Your task to perform on an android device: change the clock display to show seconds Image 0: 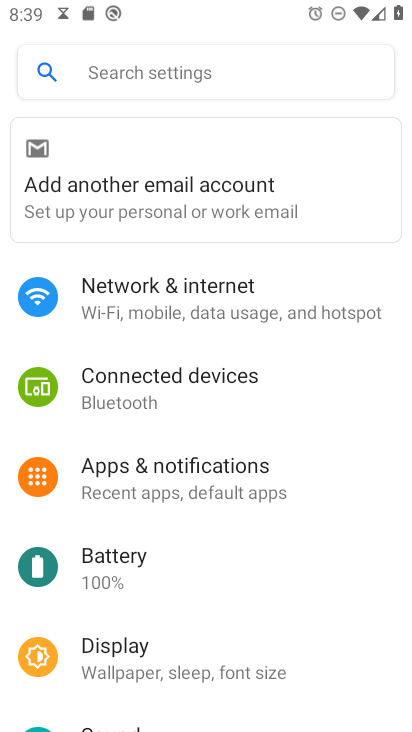
Step 0: press home button
Your task to perform on an android device: change the clock display to show seconds Image 1: 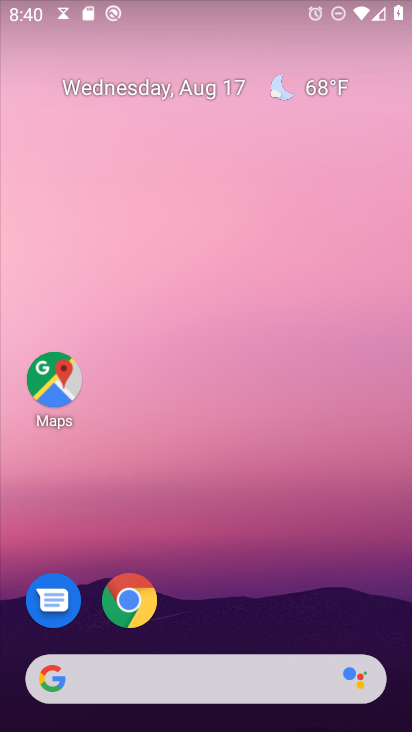
Step 1: drag from (284, 526) to (246, 100)
Your task to perform on an android device: change the clock display to show seconds Image 2: 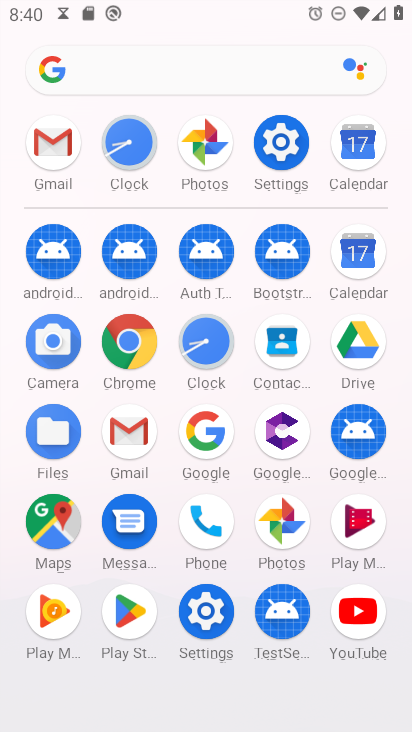
Step 2: click (137, 149)
Your task to perform on an android device: change the clock display to show seconds Image 3: 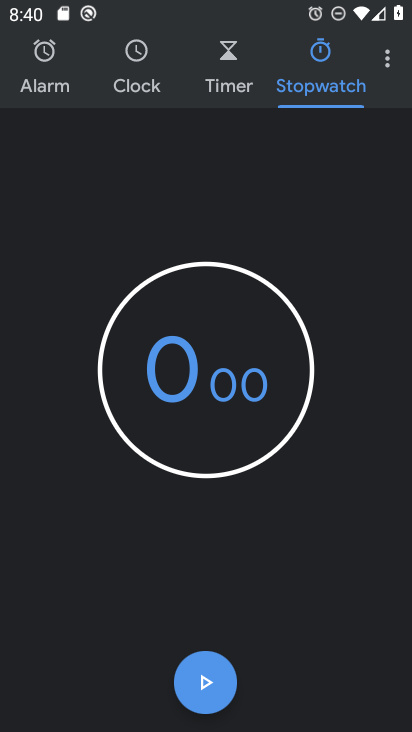
Step 3: click (385, 56)
Your task to perform on an android device: change the clock display to show seconds Image 4: 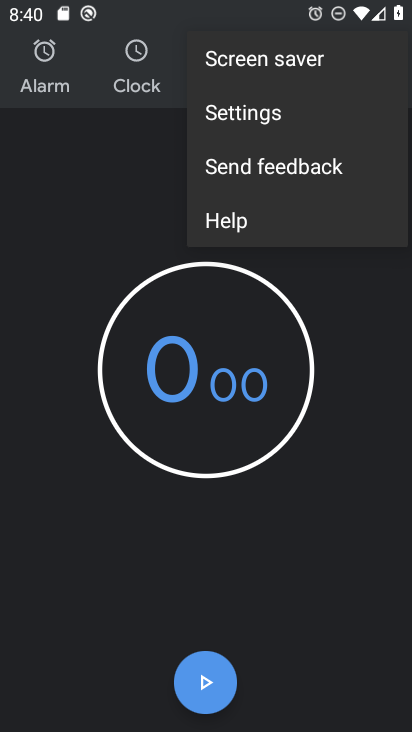
Step 4: click (254, 115)
Your task to perform on an android device: change the clock display to show seconds Image 5: 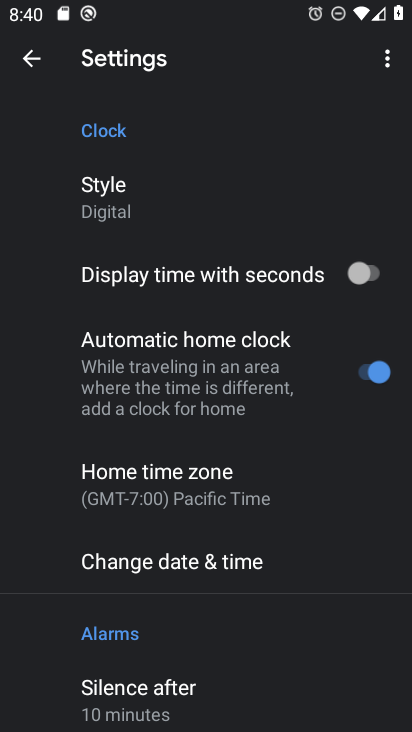
Step 5: click (362, 270)
Your task to perform on an android device: change the clock display to show seconds Image 6: 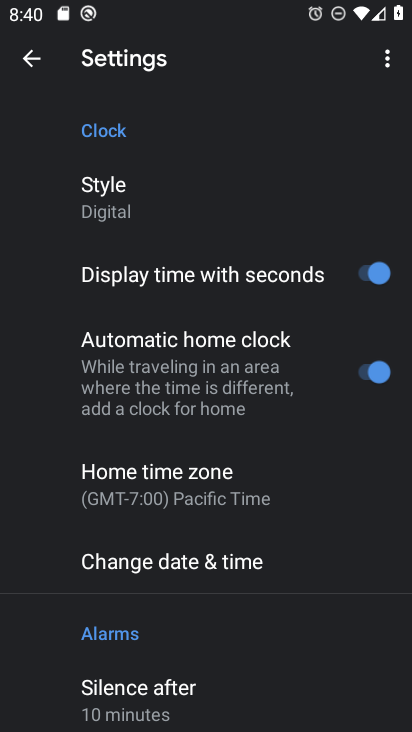
Step 6: task complete